Your task to perform on an android device: toggle airplane mode Image 0: 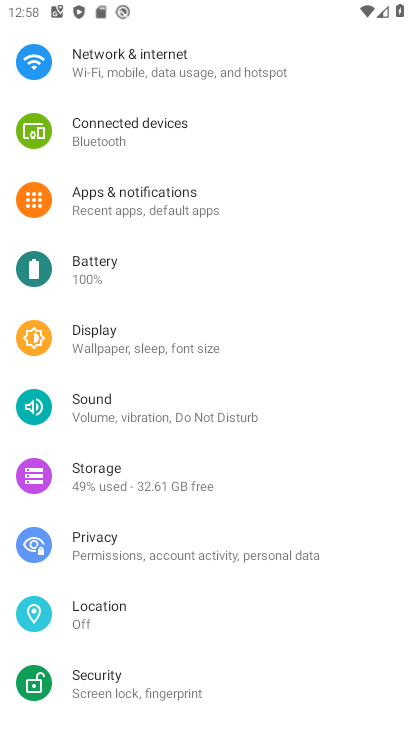
Step 0: press home button
Your task to perform on an android device: toggle airplane mode Image 1: 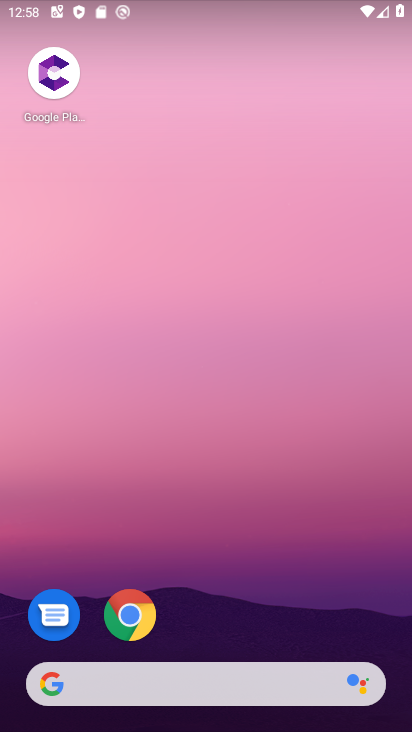
Step 1: drag from (214, 729) to (213, 166)
Your task to perform on an android device: toggle airplane mode Image 2: 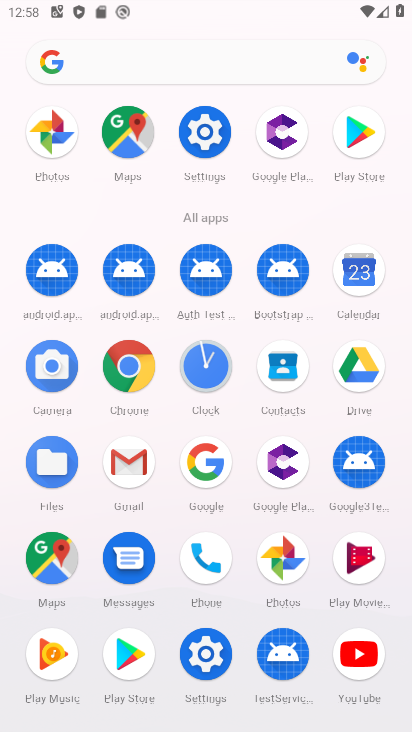
Step 2: click (202, 138)
Your task to perform on an android device: toggle airplane mode Image 3: 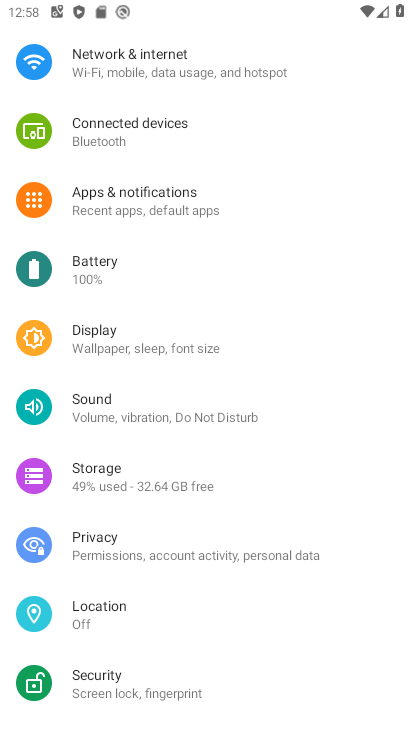
Step 3: drag from (197, 120) to (195, 483)
Your task to perform on an android device: toggle airplane mode Image 4: 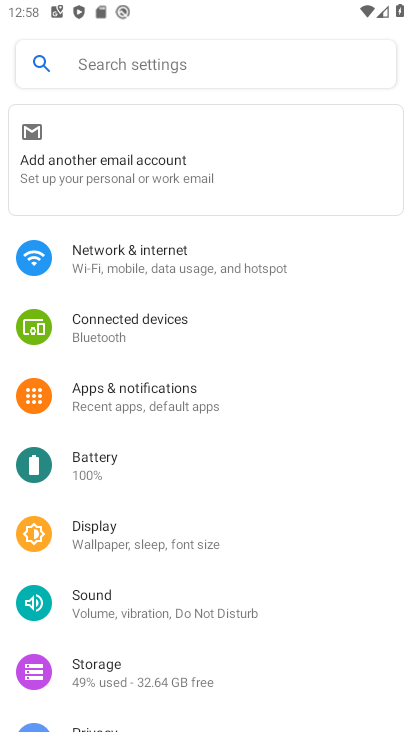
Step 4: click (128, 256)
Your task to perform on an android device: toggle airplane mode Image 5: 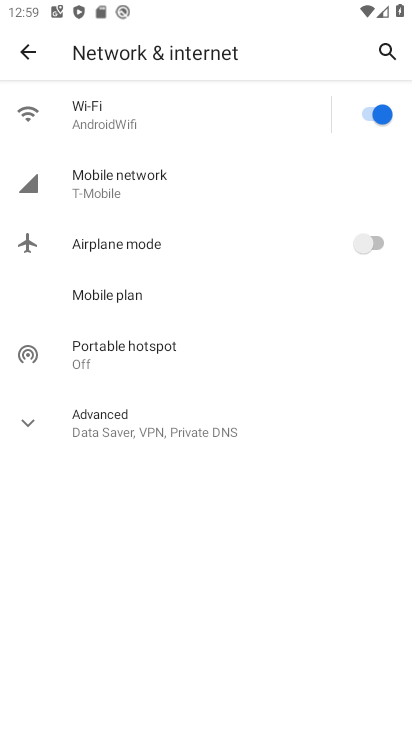
Step 5: click (366, 244)
Your task to perform on an android device: toggle airplane mode Image 6: 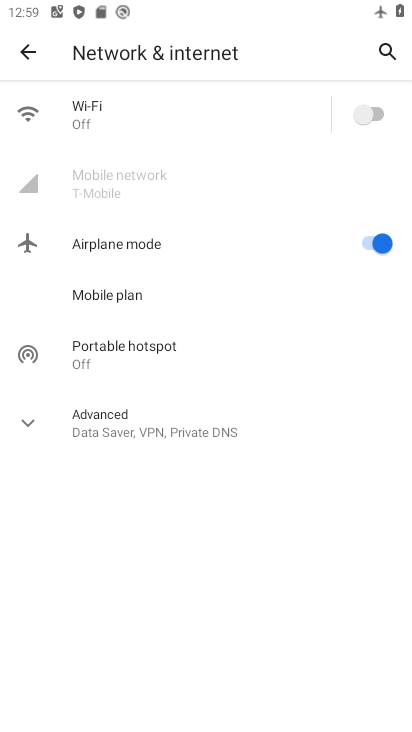
Step 6: task complete